Your task to perform on an android device: delete the emails in spam in the gmail app Image 0: 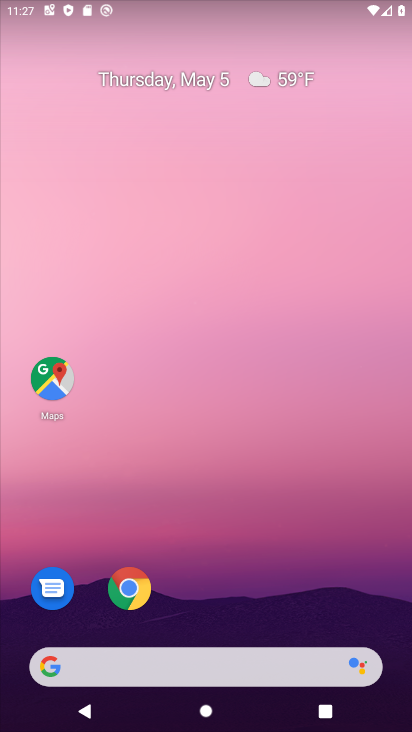
Step 0: drag from (260, 531) to (245, 26)
Your task to perform on an android device: delete the emails in spam in the gmail app Image 1: 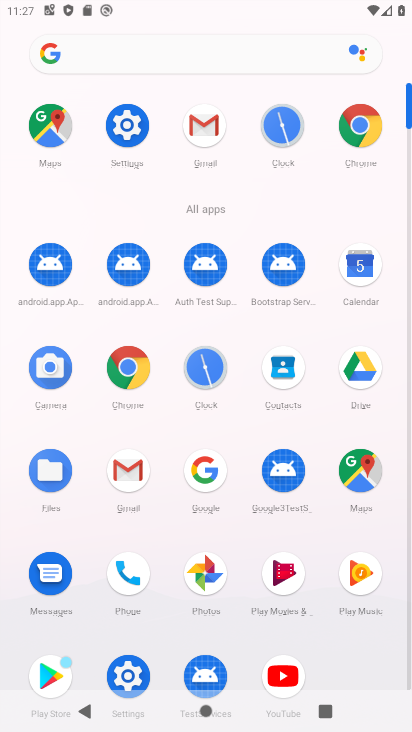
Step 1: click (200, 117)
Your task to perform on an android device: delete the emails in spam in the gmail app Image 2: 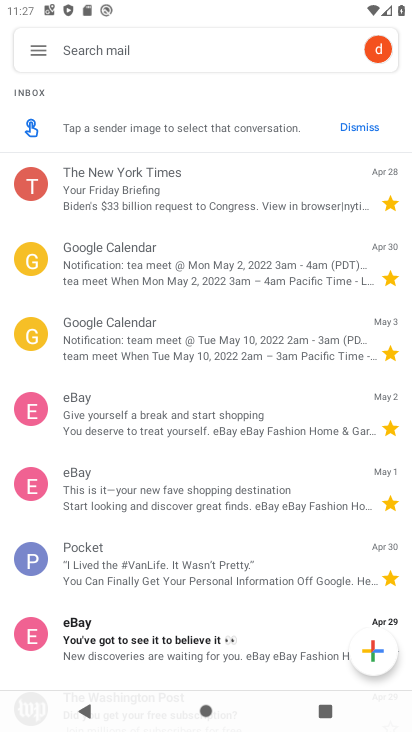
Step 2: click (32, 45)
Your task to perform on an android device: delete the emails in spam in the gmail app Image 3: 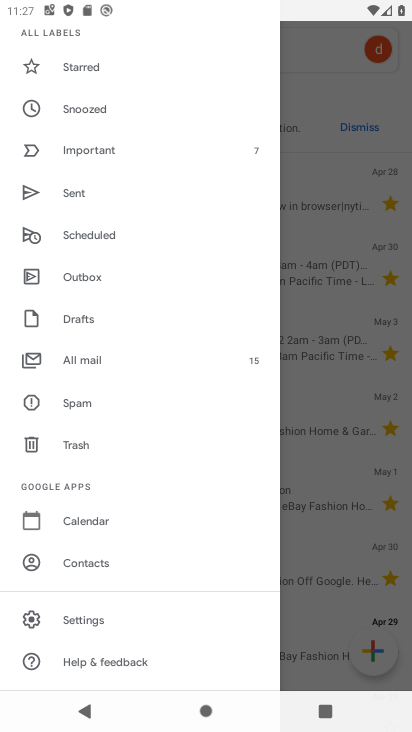
Step 3: click (84, 392)
Your task to perform on an android device: delete the emails in spam in the gmail app Image 4: 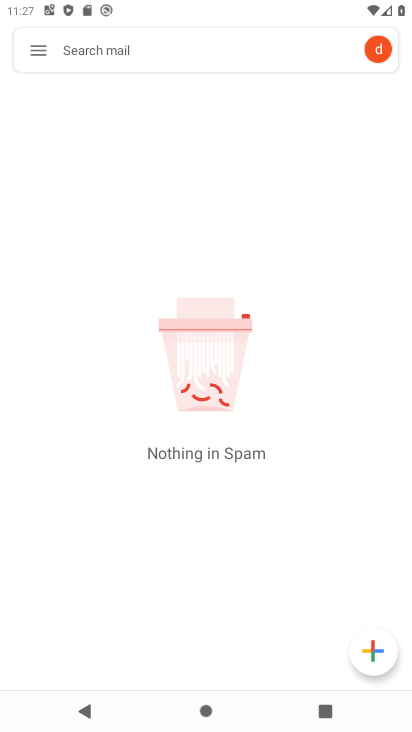
Step 4: task complete